Your task to perform on an android device: Open Google Image 0: 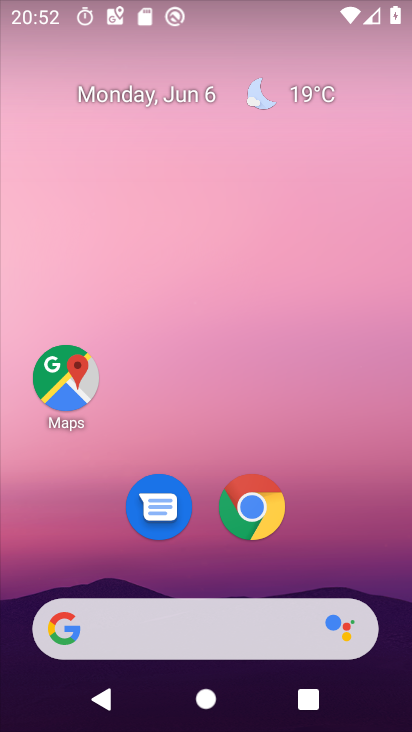
Step 0: press home button
Your task to perform on an android device: Open Google Image 1: 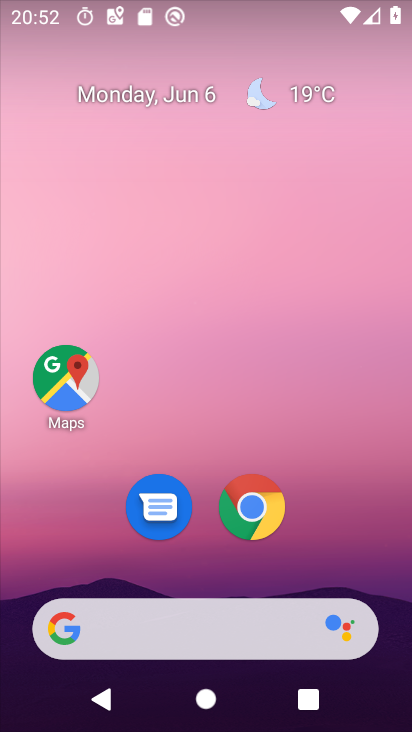
Step 1: drag from (376, 589) to (338, 40)
Your task to perform on an android device: Open Google Image 2: 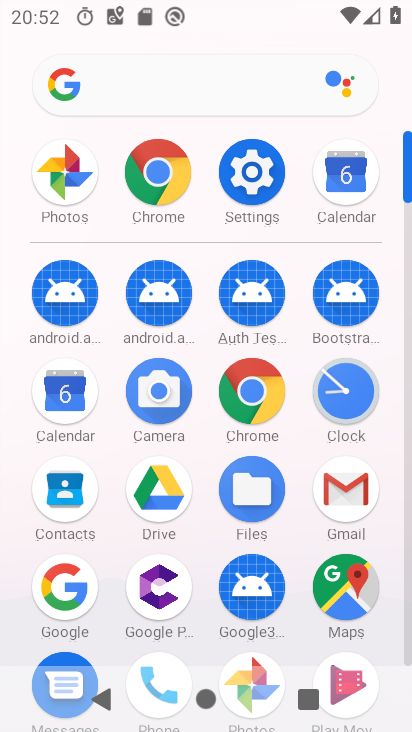
Step 2: click (53, 615)
Your task to perform on an android device: Open Google Image 3: 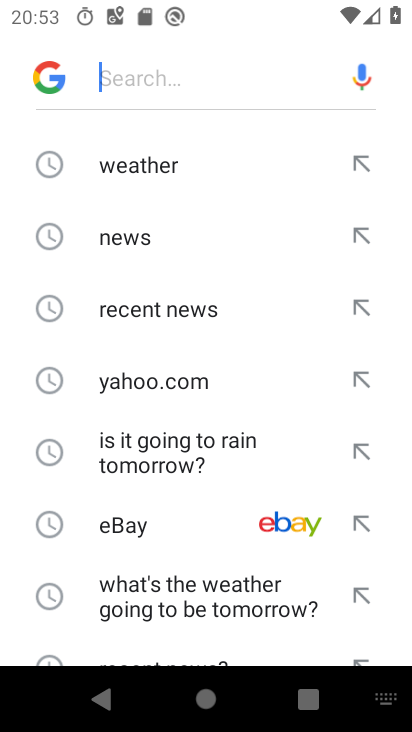
Step 3: task complete